Your task to perform on an android device: Go to Google Image 0: 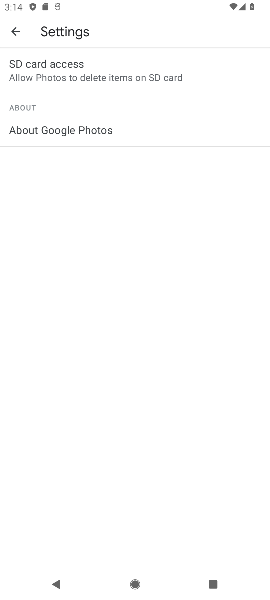
Step 0: press home button
Your task to perform on an android device: Go to Google Image 1: 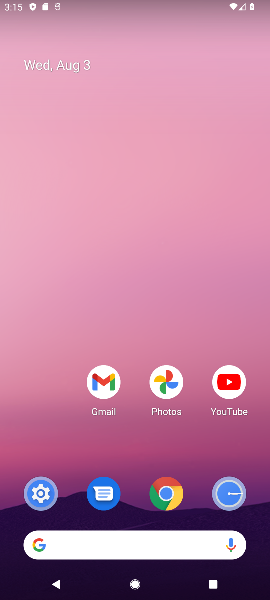
Step 1: drag from (194, 454) to (260, 54)
Your task to perform on an android device: Go to Google Image 2: 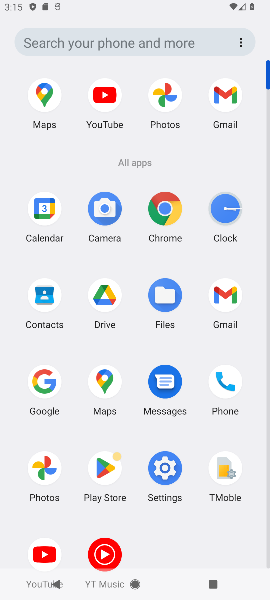
Step 2: click (52, 385)
Your task to perform on an android device: Go to Google Image 3: 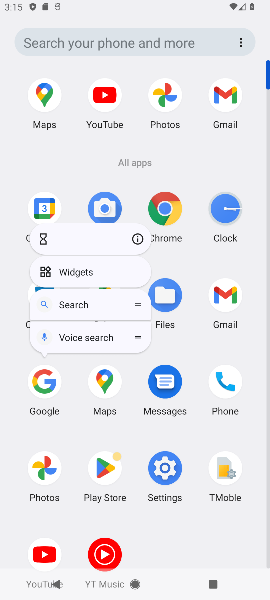
Step 3: click (36, 379)
Your task to perform on an android device: Go to Google Image 4: 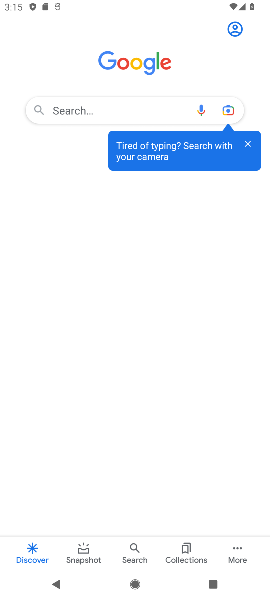
Step 4: task complete